Your task to perform on an android device: Check out the best rated electric trimmers on Lowe's Image 0: 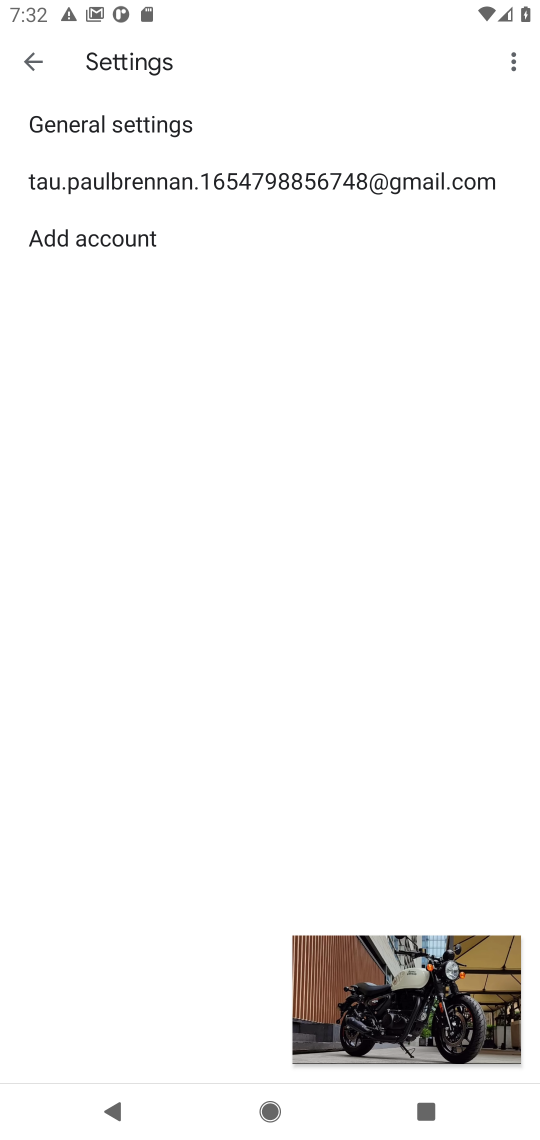
Step 0: click (31, 109)
Your task to perform on an android device: Check out the best rated electric trimmers on Lowe's Image 1: 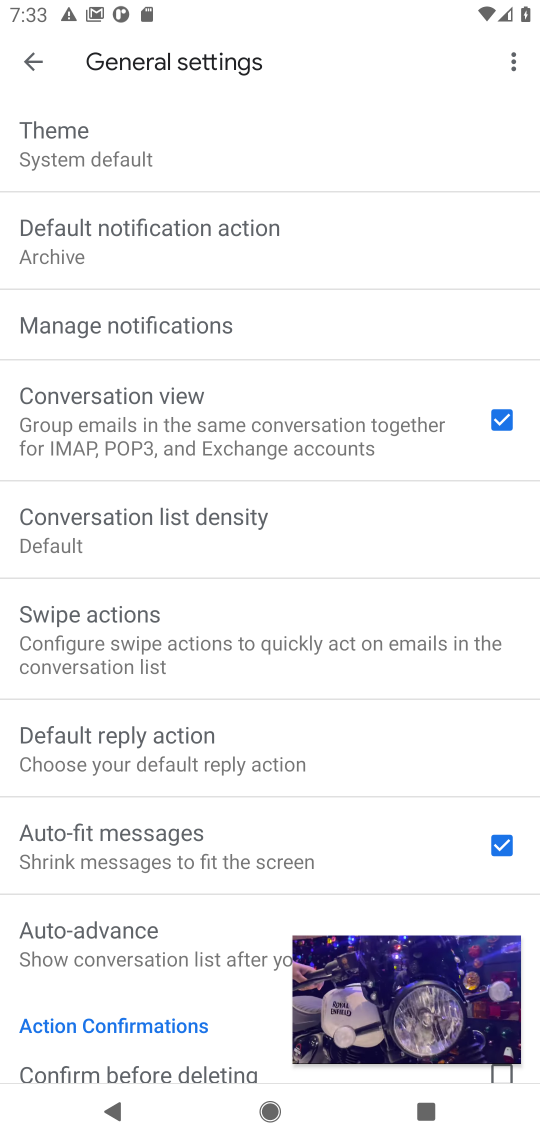
Step 1: task complete